Your task to perform on an android device: turn pop-ups off in chrome Image 0: 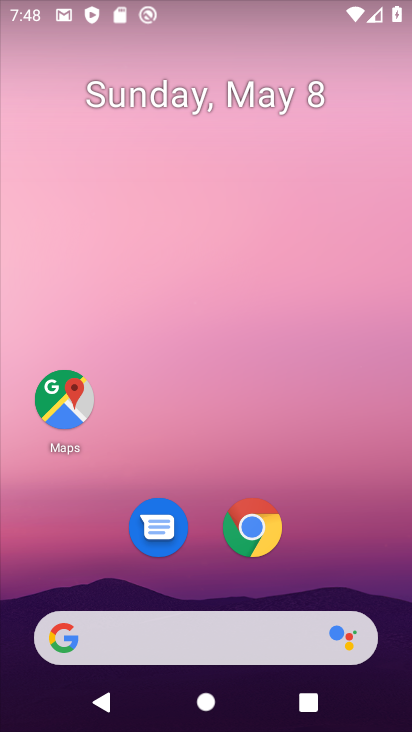
Step 0: drag from (401, 681) to (276, 23)
Your task to perform on an android device: turn pop-ups off in chrome Image 1: 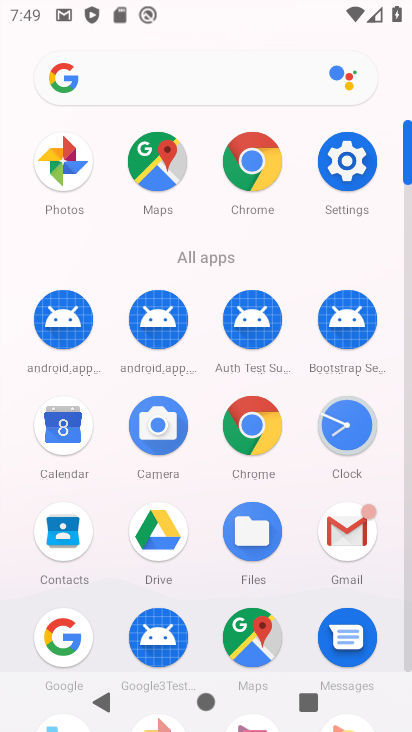
Step 1: click (250, 423)
Your task to perform on an android device: turn pop-ups off in chrome Image 2: 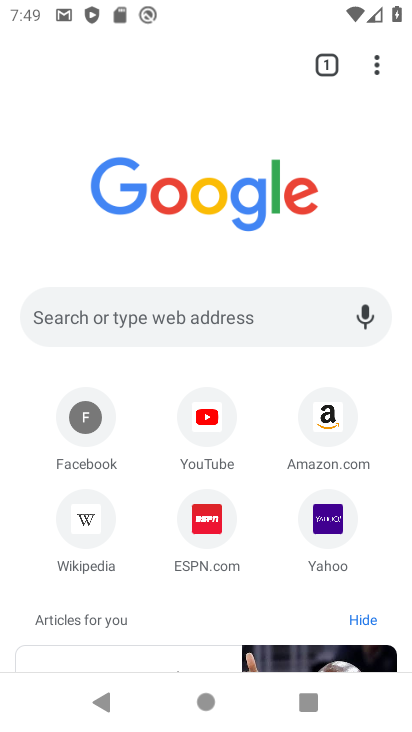
Step 2: drag from (375, 61) to (164, 558)
Your task to perform on an android device: turn pop-ups off in chrome Image 3: 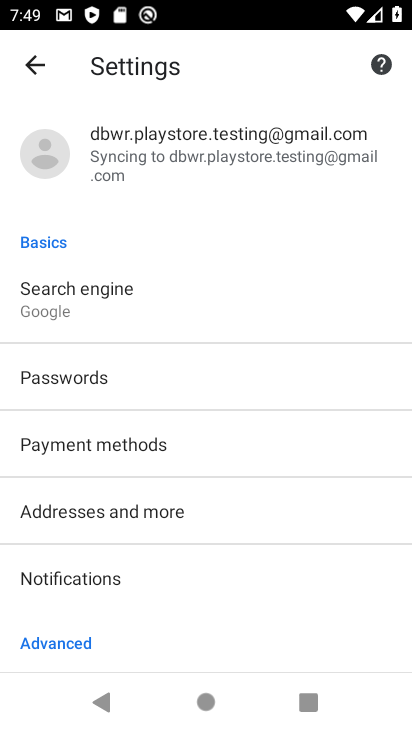
Step 3: drag from (252, 592) to (248, 145)
Your task to perform on an android device: turn pop-ups off in chrome Image 4: 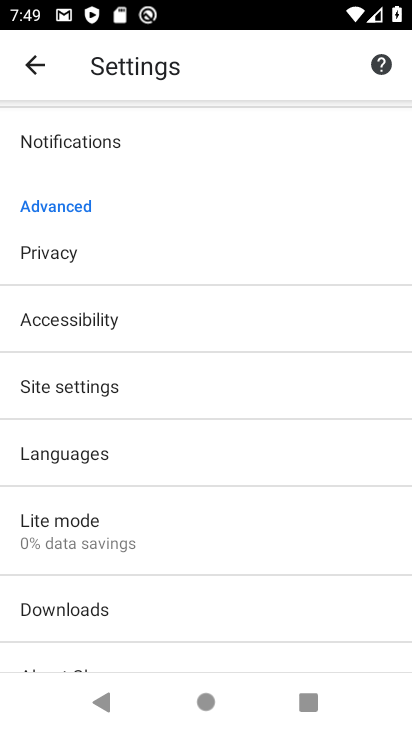
Step 4: click (122, 373)
Your task to perform on an android device: turn pop-ups off in chrome Image 5: 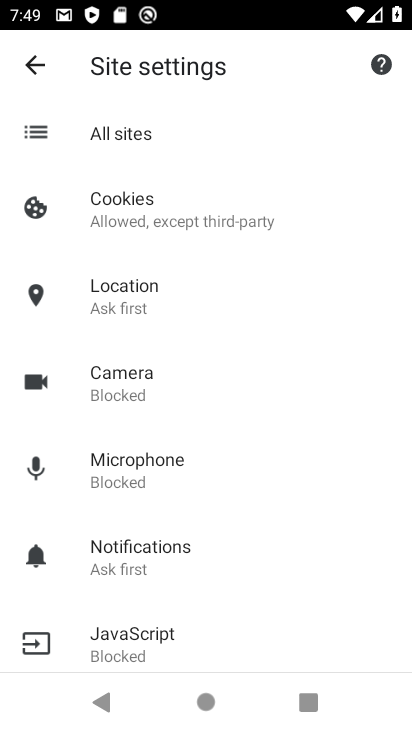
Step 5: drag from (249, 280) to (264, 184)
Your task to perform on an android device: turn pop-ups off in chrome Image 6: 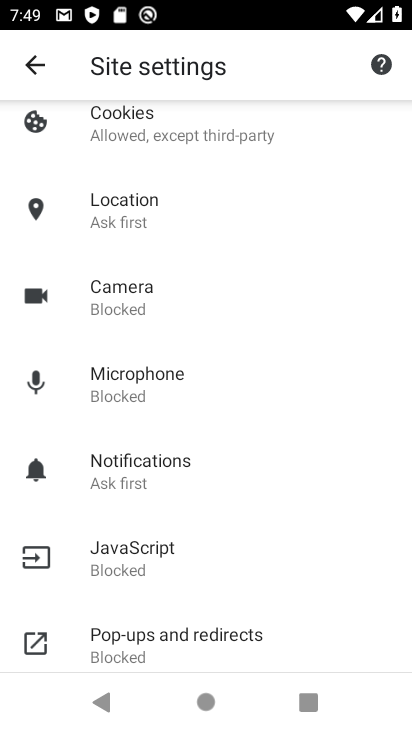
Step 6: click (125, 630)
Your task to perform on an android device: turn pop-ups off in chrome Image 7: 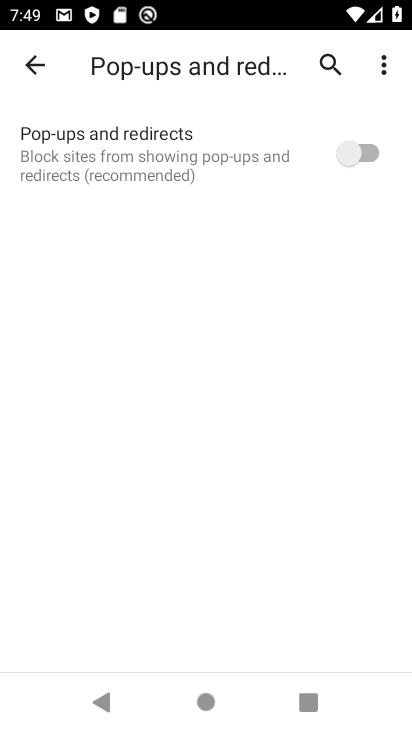
Step 7: task complete